Your task to perform on an android device: toggle translation in the chrome app Image 0: 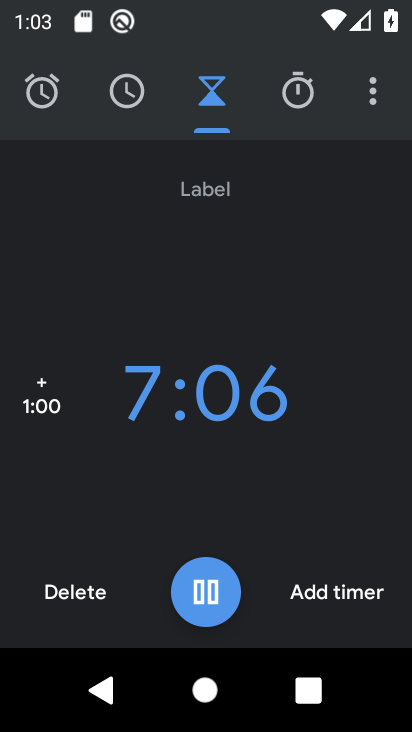
Step 0: press home button
Your task to perform on an android device: toggle translation in the chrome app Image 1: 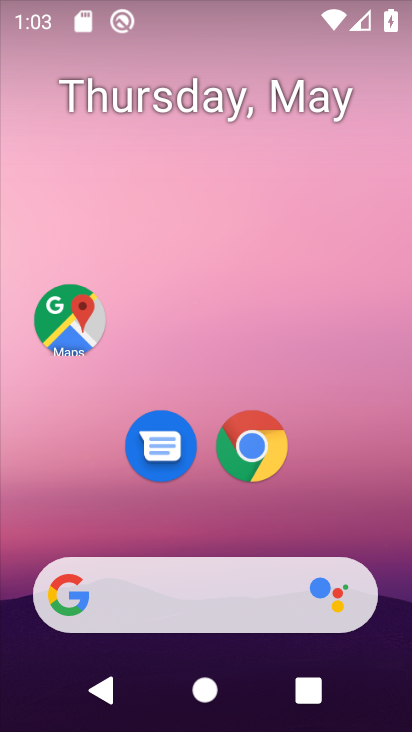
Step 1: click (255, 448)
Your task to perform on an android device: toggle translation in the chrome app Image 2: 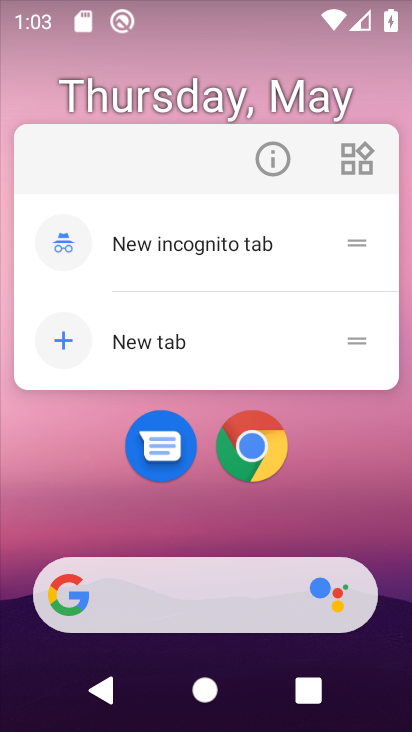
Step 2: click (255, 451)
Your task to perform on an android device: toggle translation in the chrome app Image 3: 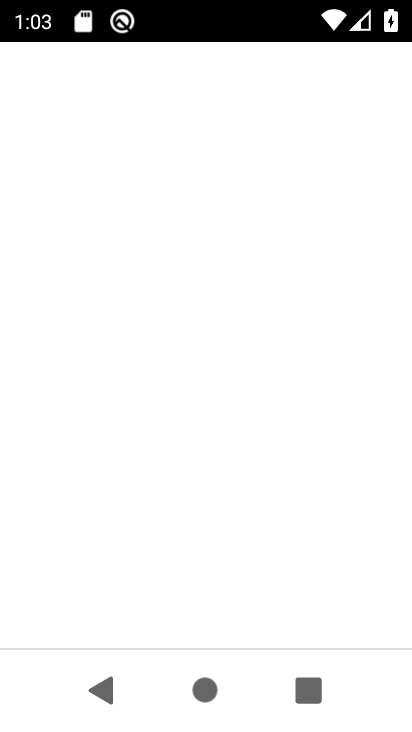
Step 3: click (256, 451)
Your task to perform on an android device: toggle translation in the chrome app Image 4: 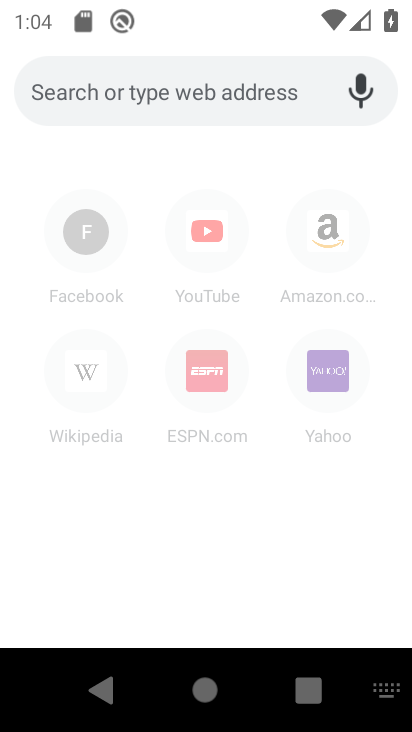
Step 4: press back button
Your task to perform on an android device: toggle translation in the chrome app Image 5: 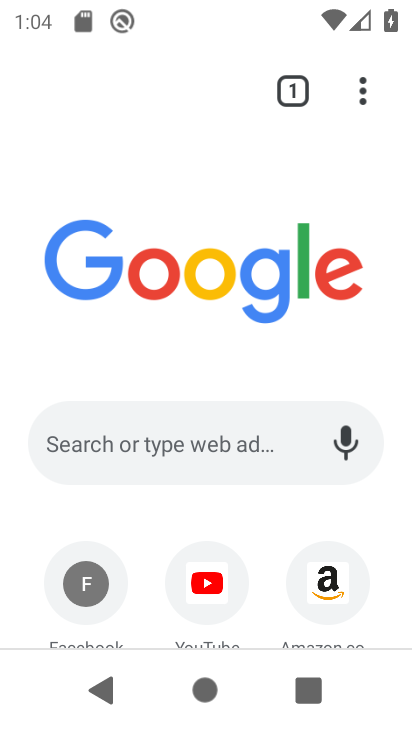
Step 5: click (365, 86)
Your task to perform on an android device: toggle translation in the chrome app Image 6: 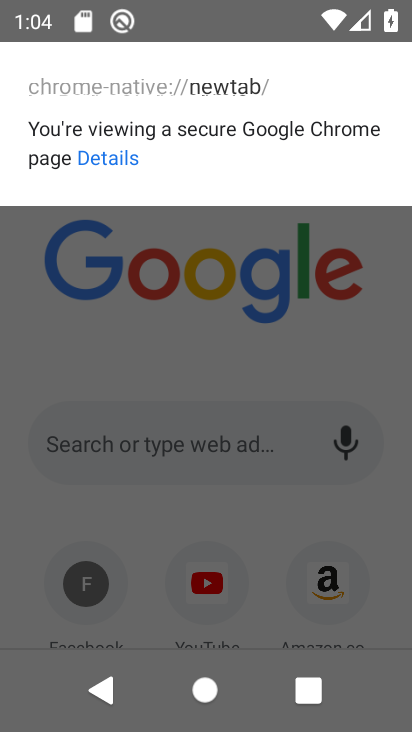
Step 6: click (114, 312)
Your task to perform on an android device: toggle translation in the chrome app Image 7: 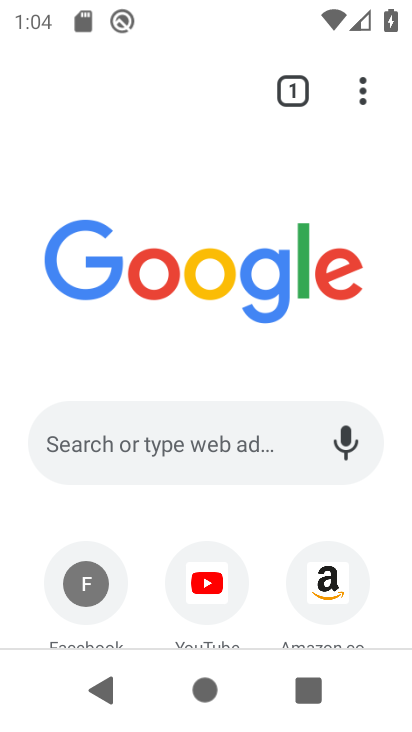
Step 7: click (372, 87)
Your task to perform on an android device: toggle translation in the chrome app Image 8: 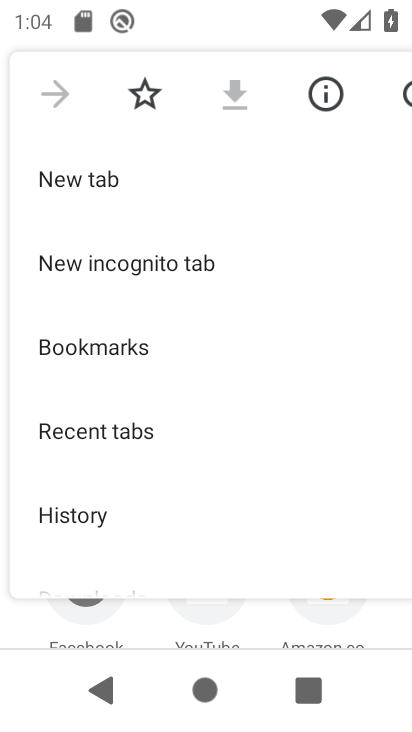
Step 8: drag from (79, 532) to (150, 264)
Your task to perform on an android device: toggle translation in the chrome app Image 9: 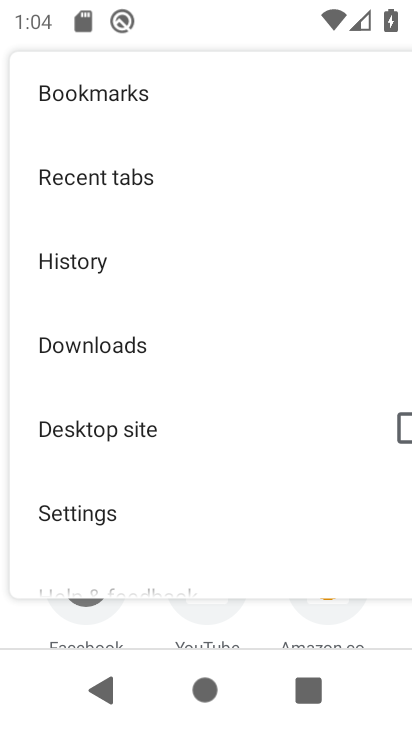
Step 9: drag from (187, 484) to (204, 361)
Your task to perform on an android device: toggle translation in the chrome app Image 10: 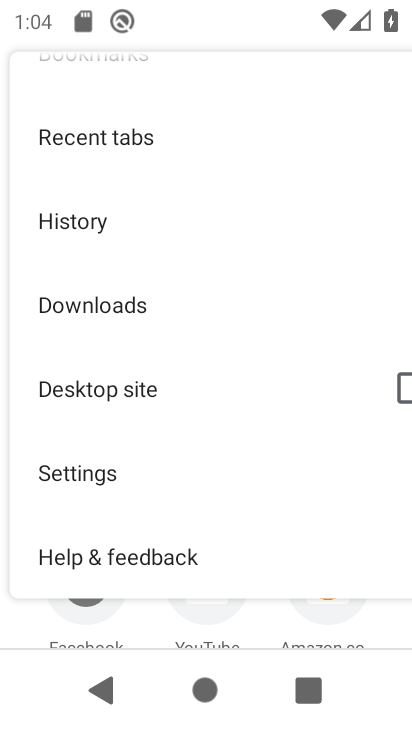
Step 10: click (80, 476)
Your task to perform on an android device: toggle translation in the chrome app Image 11: 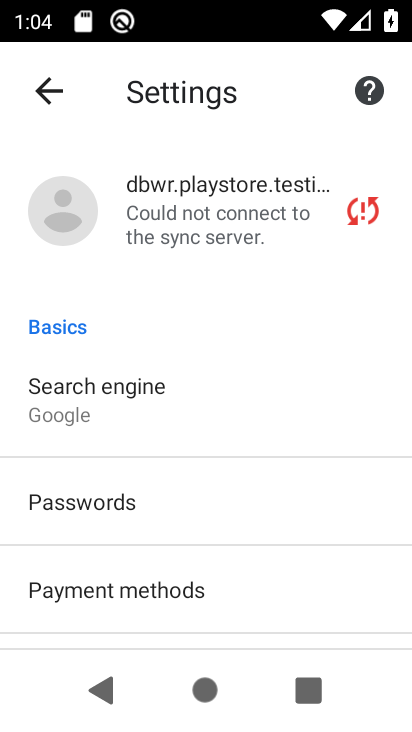
Step 11: drag from (194, 507) to (223, 311)
Your task to perform on an android device: toggle translation in the chrome app Image 12: 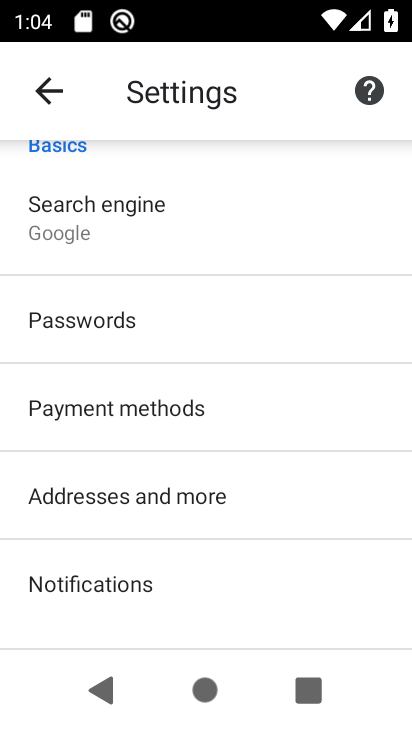
Step 12: drag from (136, 500) to (184, 282)
Your task to perform on an android device: toggle translation in the chrome app Image 13: 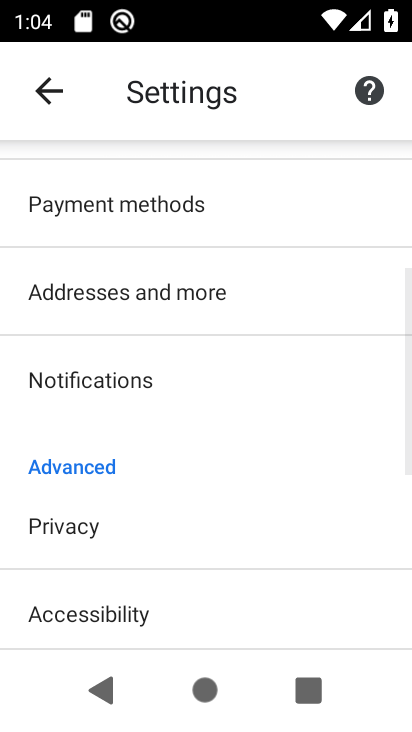
Step 13: drag from (107, 592) to (180, 254)
Your task to perform on an android device: toggle translation in the chrome app Image 14: 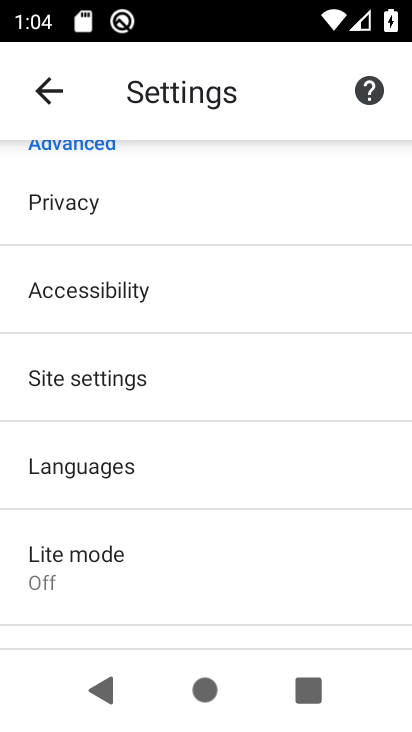
Step 14: click (129, 479)
Your task to perform on an android device: toggle translation in the chrome app Image 15: 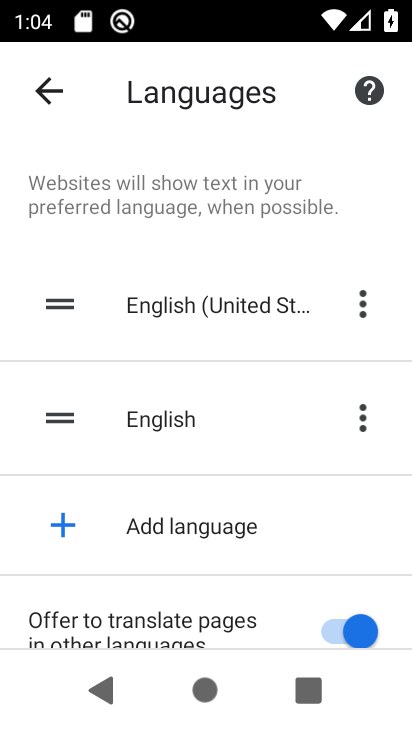
Step 15: drag from (167, 563) to (209, 399)
Your task to perform on an android device: toggle translation in the chrome app Image 16: 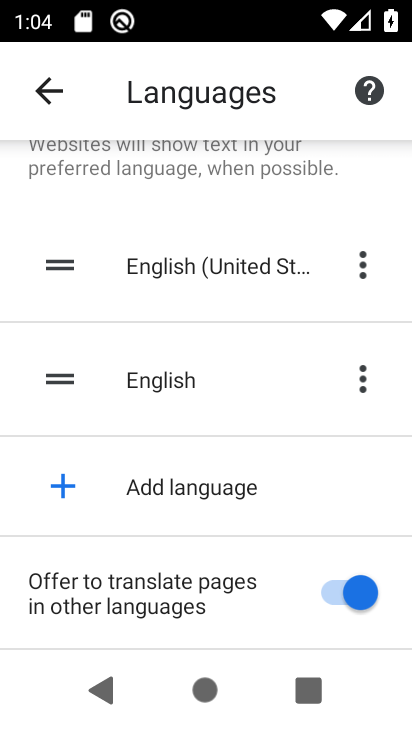
Step 16: click (323, 601)
Your task to perform on an android device: toggle translation in the chrome app Image 17: 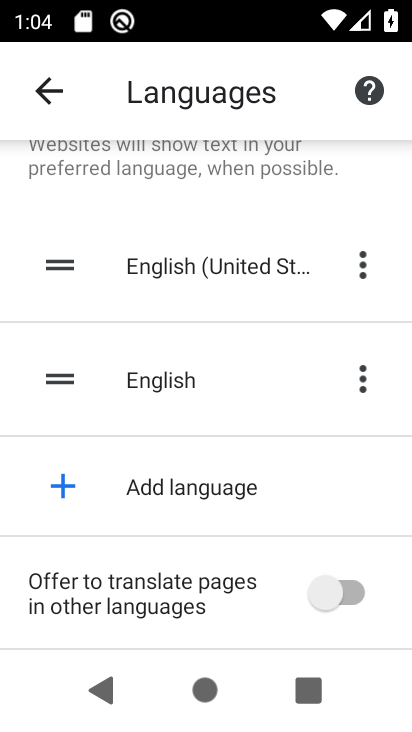
Step 17: task complete